Your task to perform on an android device: star an email in the gmail app Image 0: 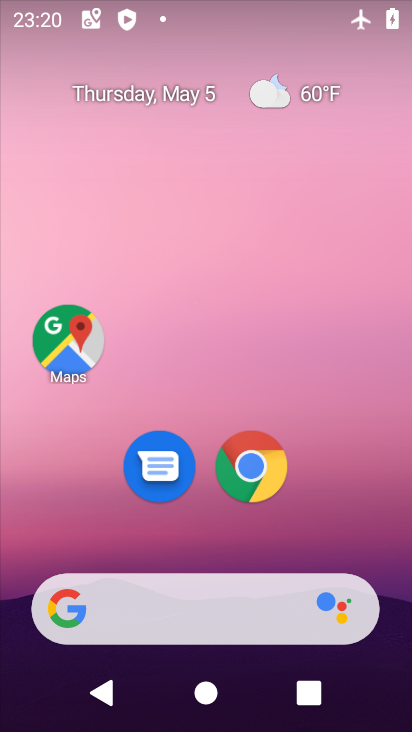
Step 0: drag from (158, 582) to (239, 347)
Your task to perform on an android device: star an email in the gmail app Image 1: 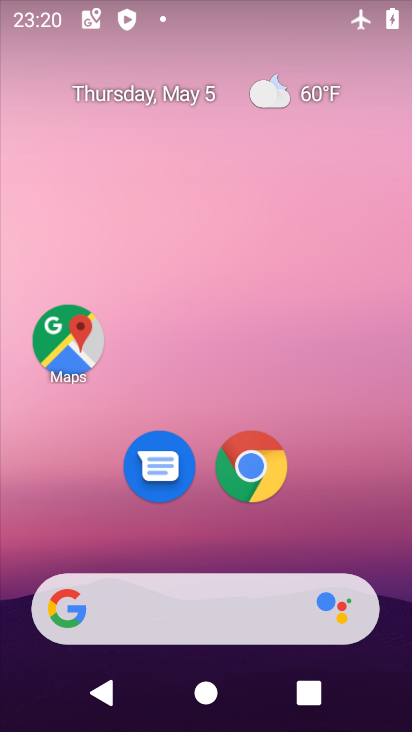
Step 1: drag from (208, 561) to (301, 166)
Your task to perform on an android device: star an email in the gmail app Image 2: 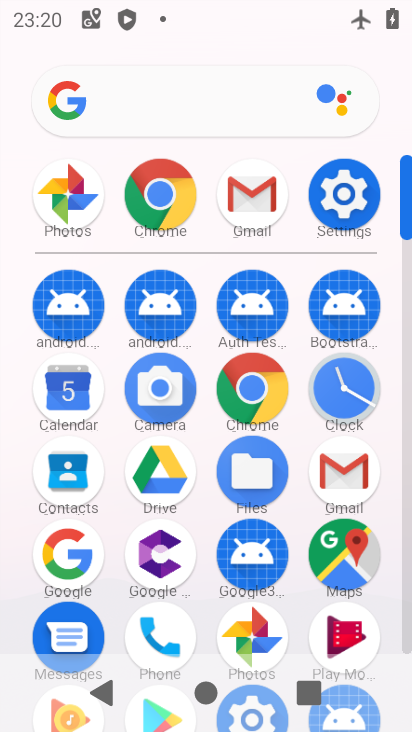
Step 2: click (238, 210)
Your task to perform on an android device: star an email in the gmail app Image 3: 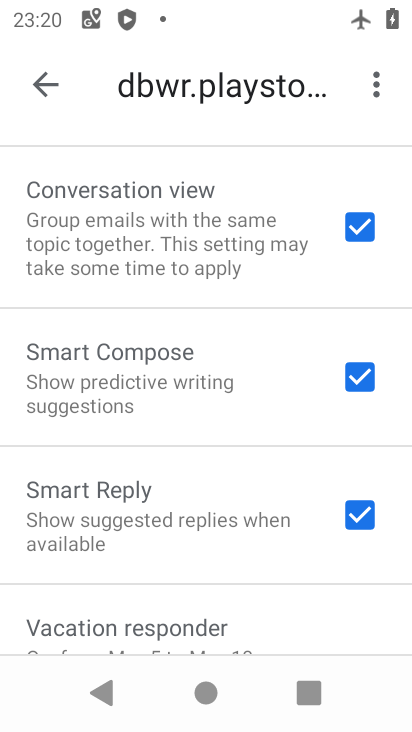
Step 3: click (36, 80)
Your task to perform on an android device: star an email in the gmail app Image 4: 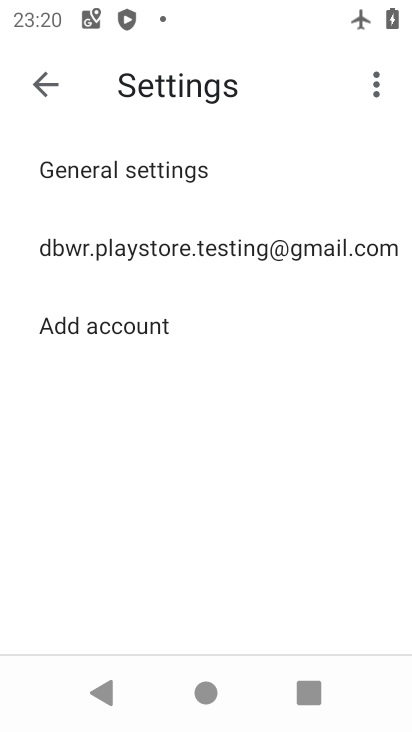
Step 4: click (36, 81)
Your task to perform on an android device: star an email in the gmail app Image 5: 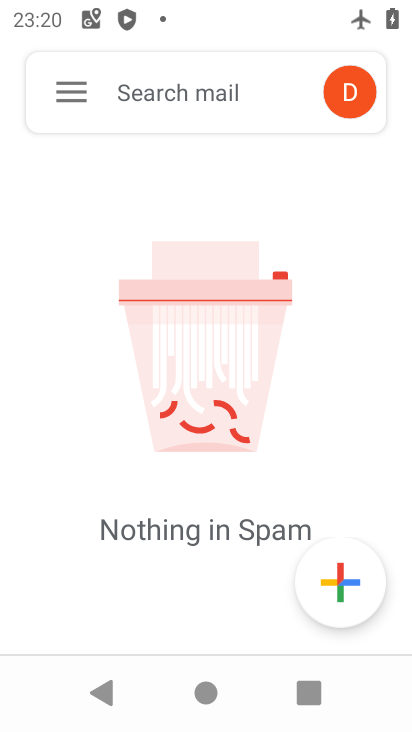
Step 5: click (78, 99)
Your task to perform on an android device: star an email in the gmail app Image 6: 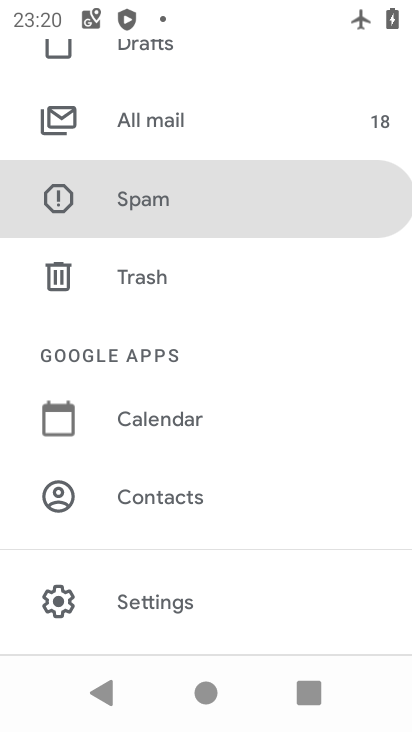
Step 6: drag from (186, 249) to (260, 578)
Your task to perform on an android device: star an email in the gmail app Image 7: 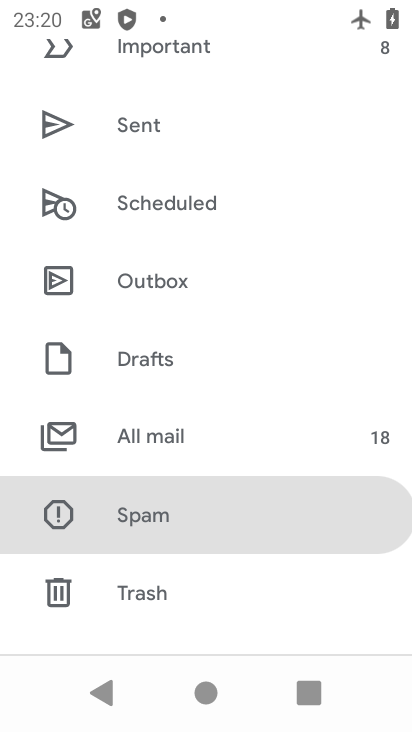
Step 7: drag from (224, 215) to (264, 428)
Your task to perform on an android device: star an email in the gmail app Image 8: 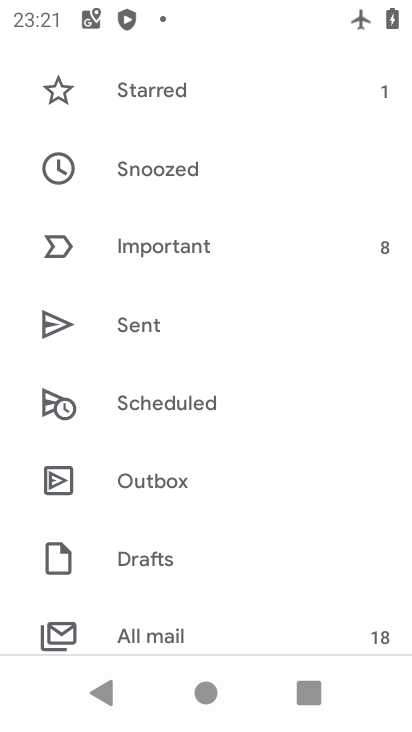
Step 8: click (168, 93)
Your task to perform on an android device: star an email in the gmail app Image 9: 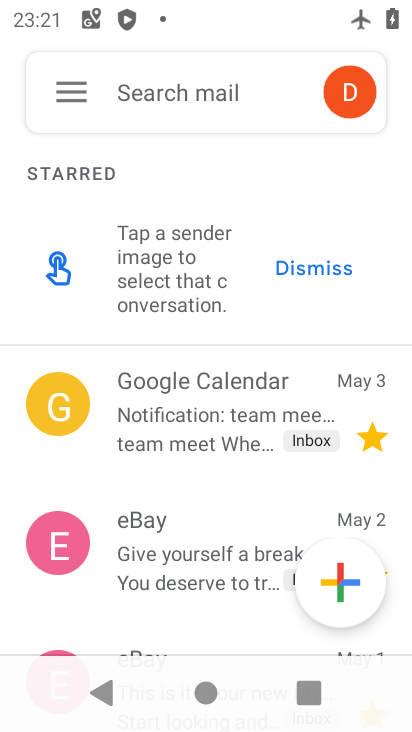
Step 9: task complete